Your task to perform on an android device: Open Wikipedia Image 0: 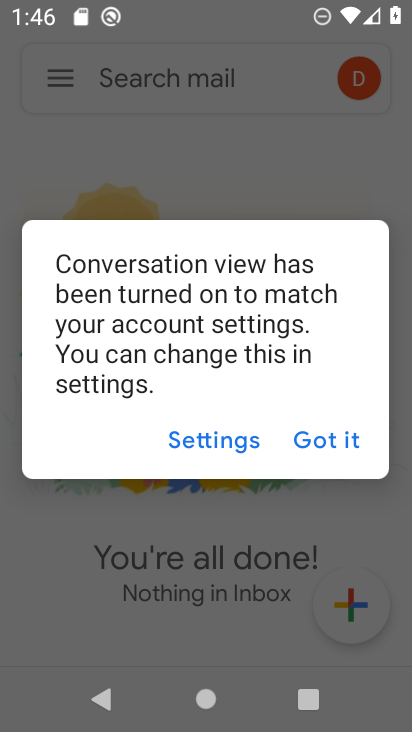
Step 0: click (292, 431)
Your task to perform on an android device: Open Wikipedia Image 1: 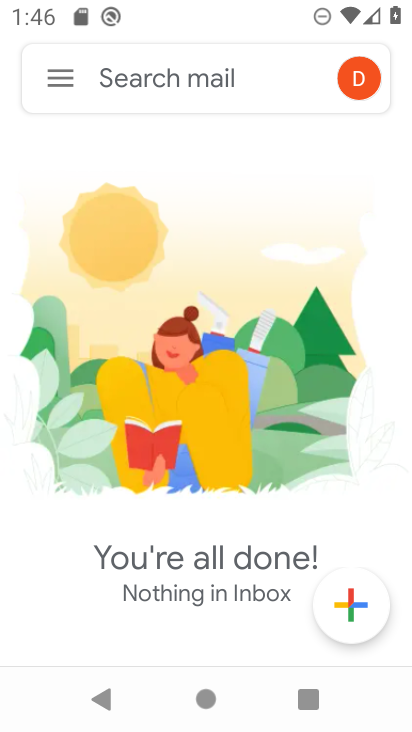
Step 1: press home button
Your task to perform on an android device: Open Wikipedia Image 2: 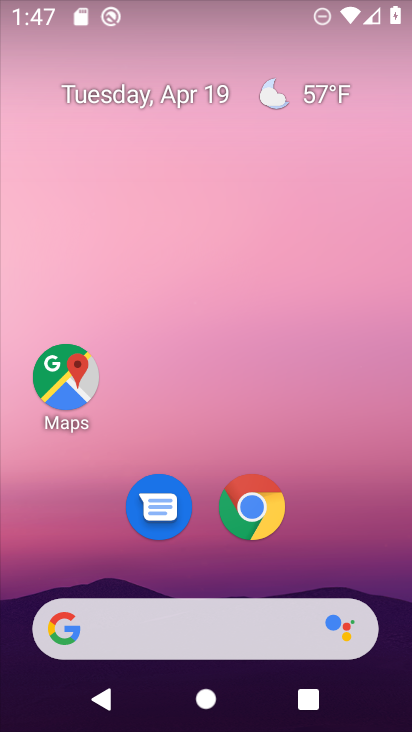
Step 2: click (276, 512)
Your task to perform on an android device: Open Wikipedia Image 3: 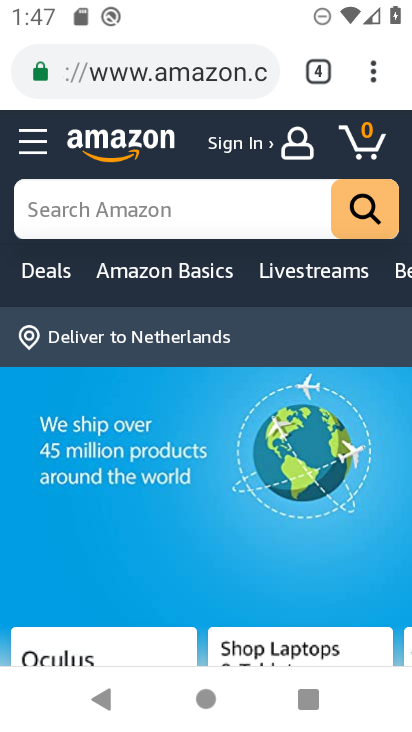
Step 3: click (251, 88)
Your task to perform on an android device: Open Wikipedia Image 4: 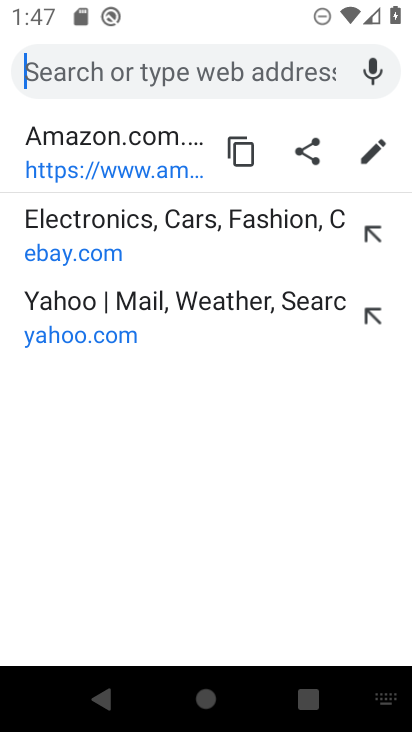
Step 4: type "wikipedia"
Your task to perform on an android device: Open Wikipedia Image 5: 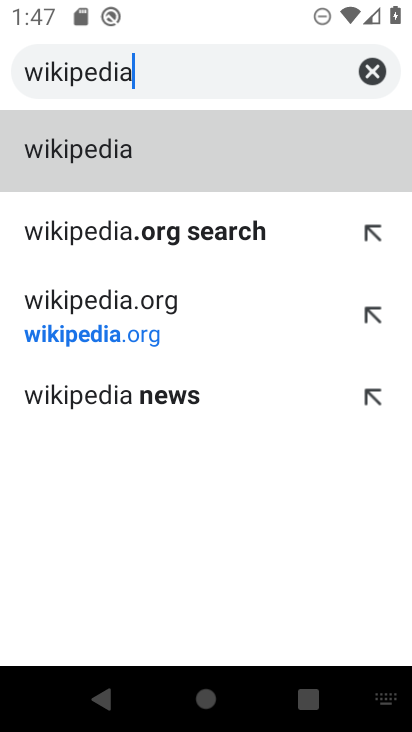
Step 5: click (142, 170)
Your task to perform on an android device: Open Wikipedia Image 6: 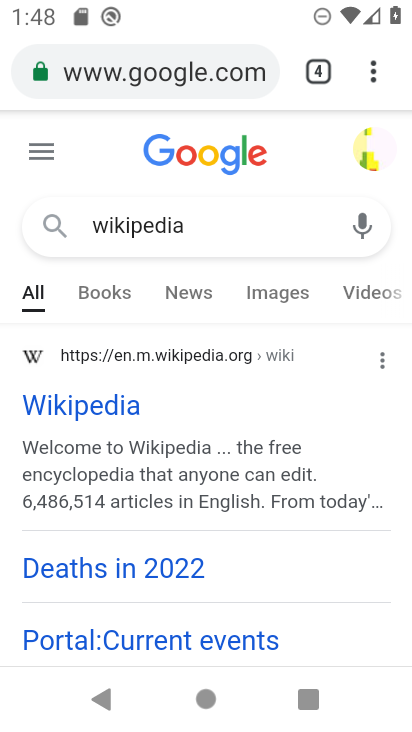
Step 6: click (95, 418)
Your task to perform on an android device: Open Wikipedia Image 7: 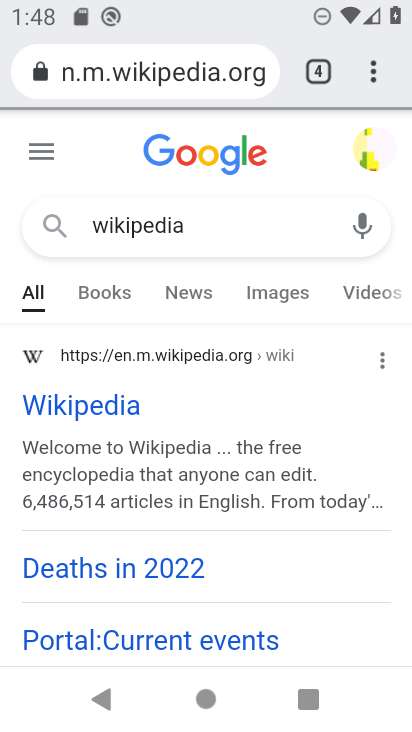
Step 7: task complete